Your task to perform on an android device: Go to Reddit.com Image 0: 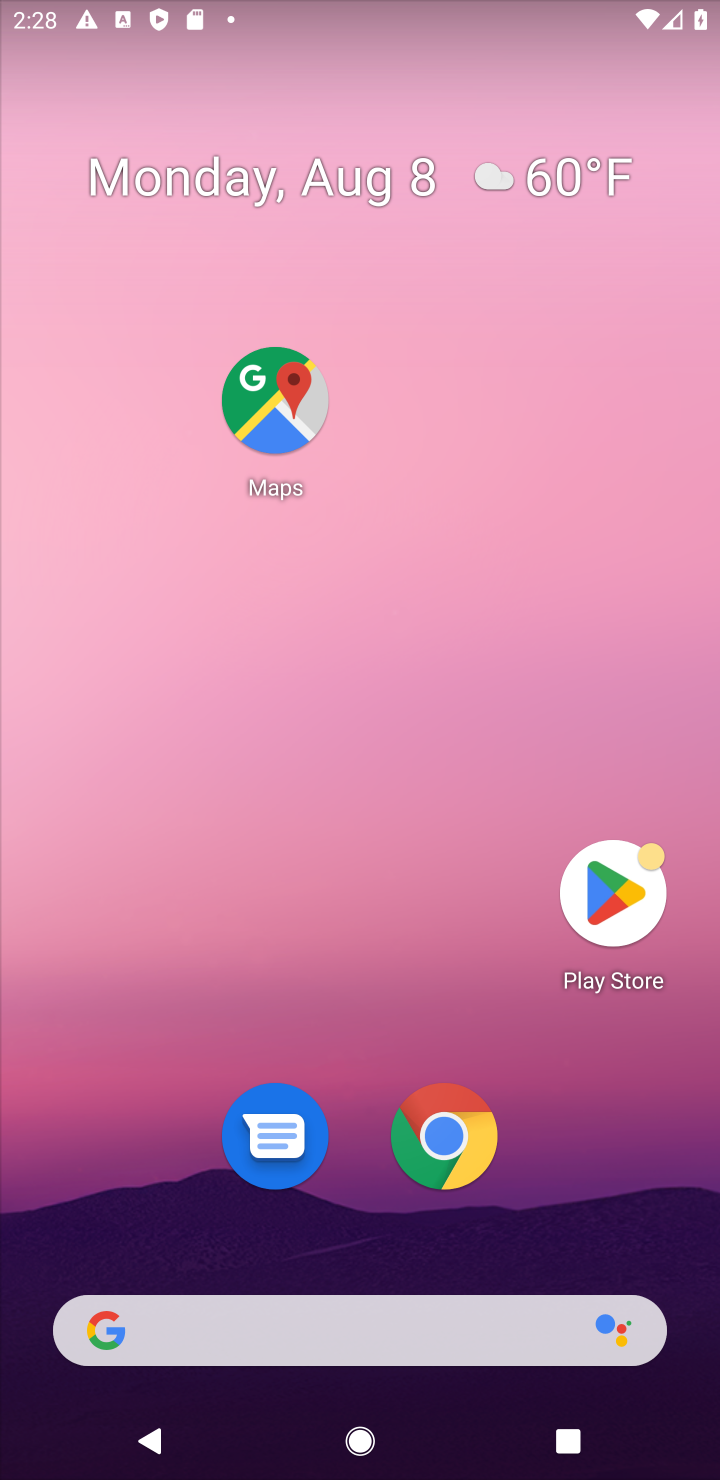
Step 0: click (201, 1304)
Your task to perform on an android device: Go to Reddit.com Image 1: 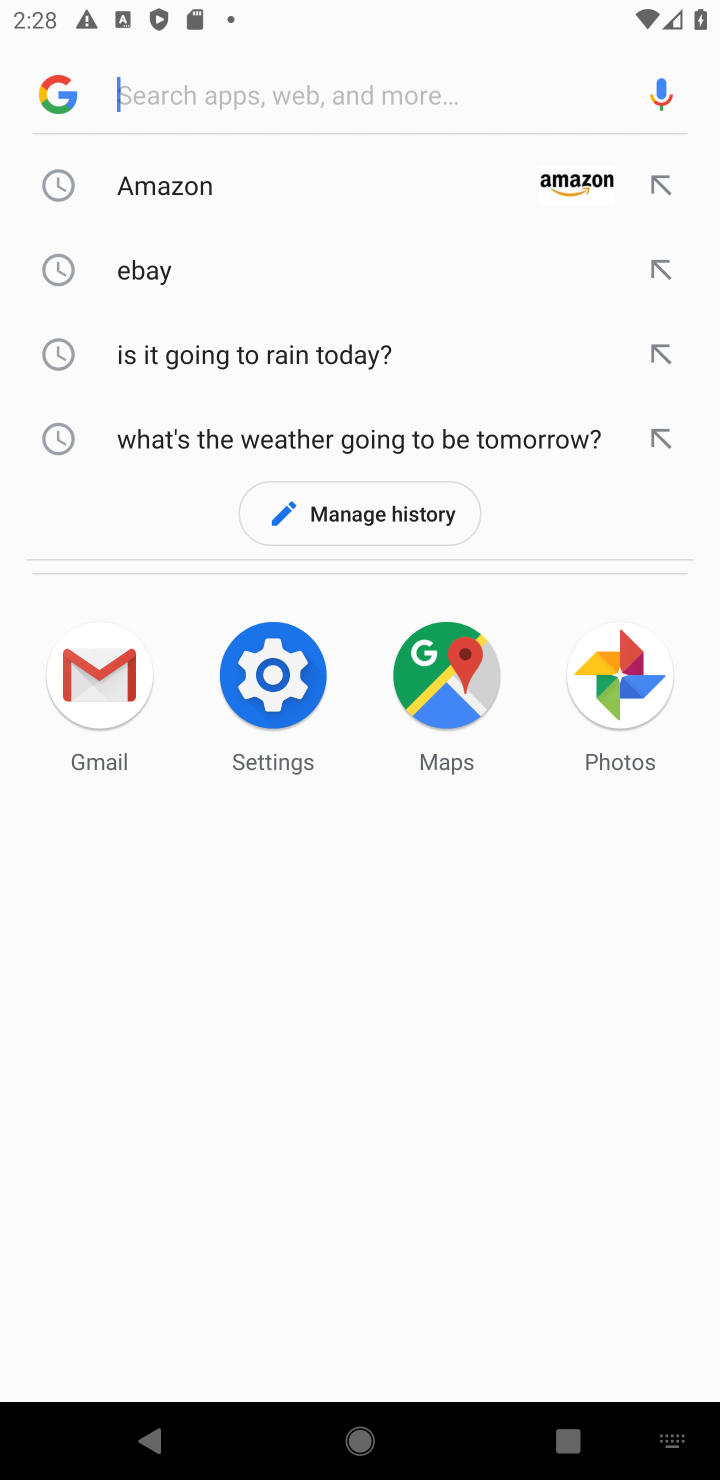
Step 1: type "Reddit.com"
Your task to perform on an android device: Go to Reddit.com Image 2: 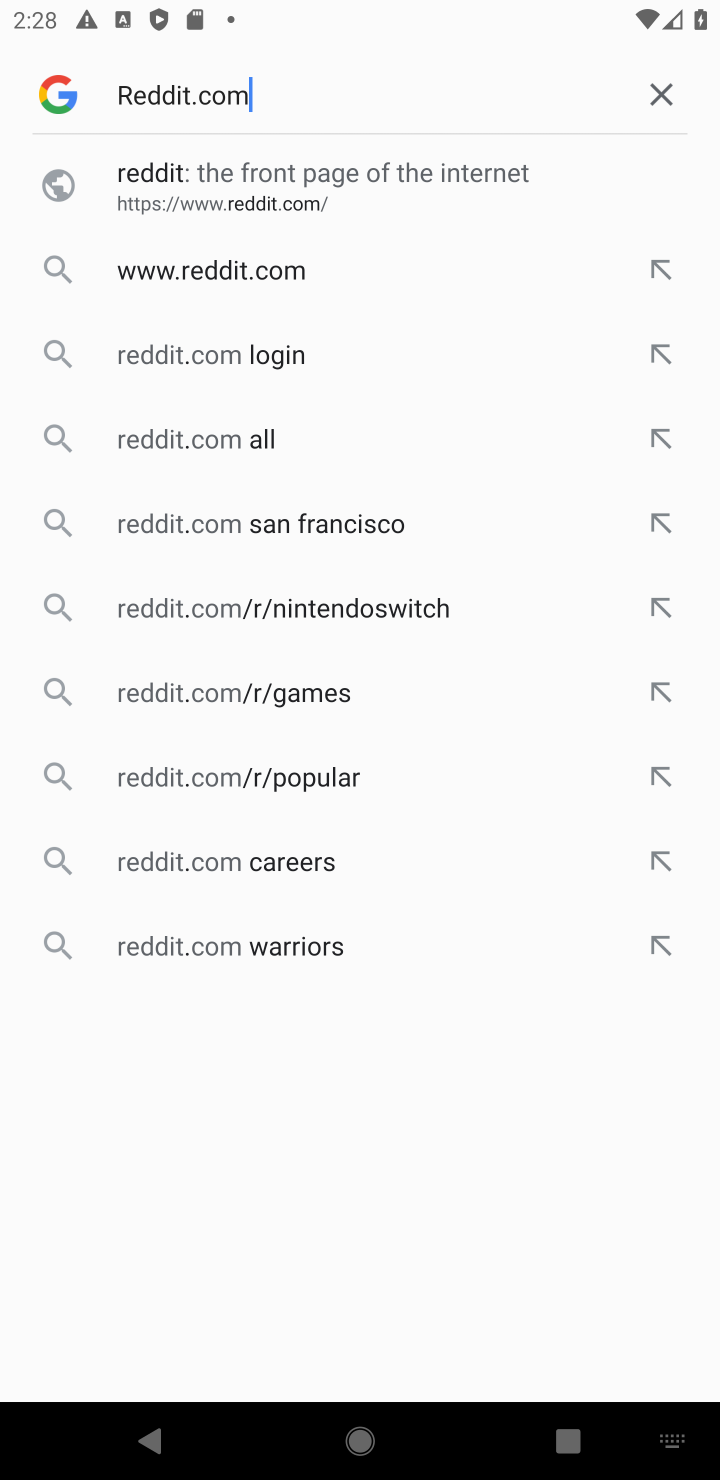
Step 2: click (232, 262)
Your task to perform on an android device: Go to Reddit.com Image 3: 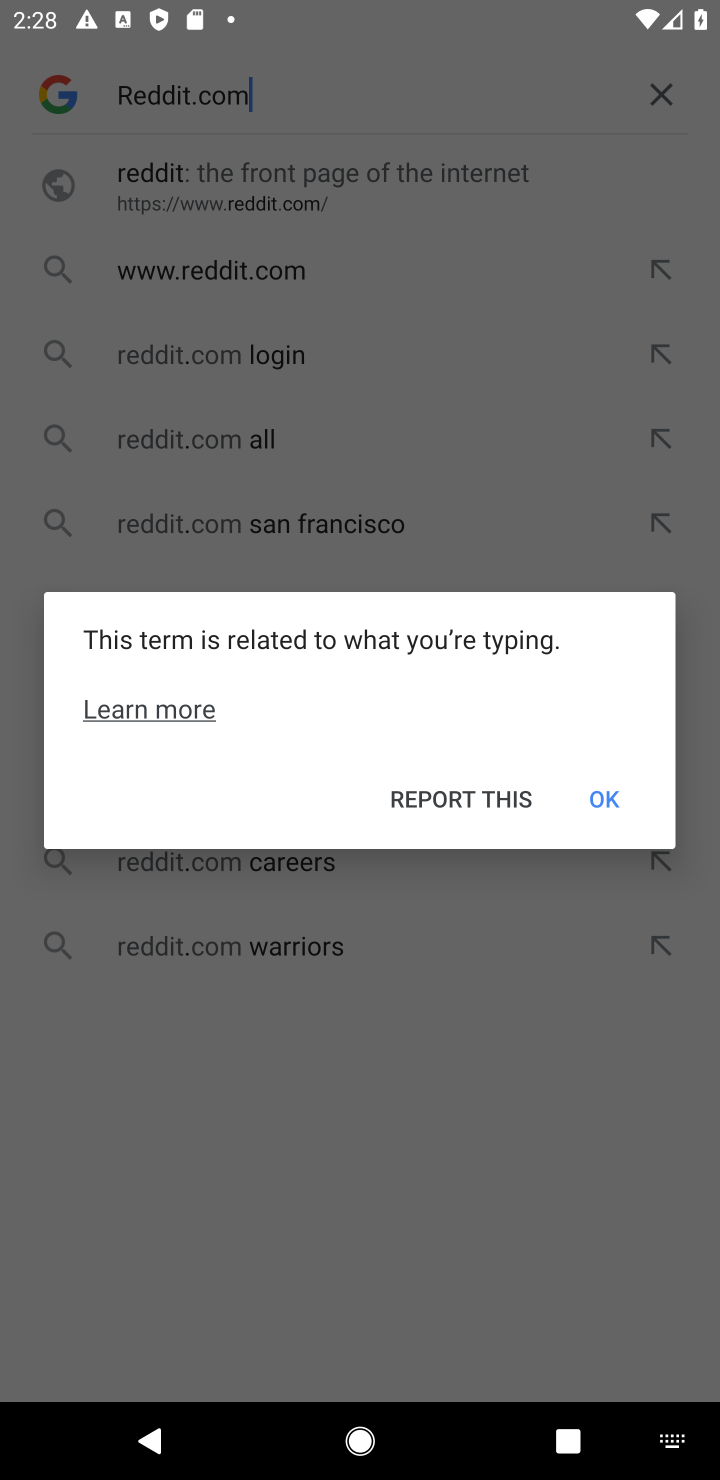
Step 3: click (622, 813)
Your task to perform on an android device: Go to Reddit.com Image 4: 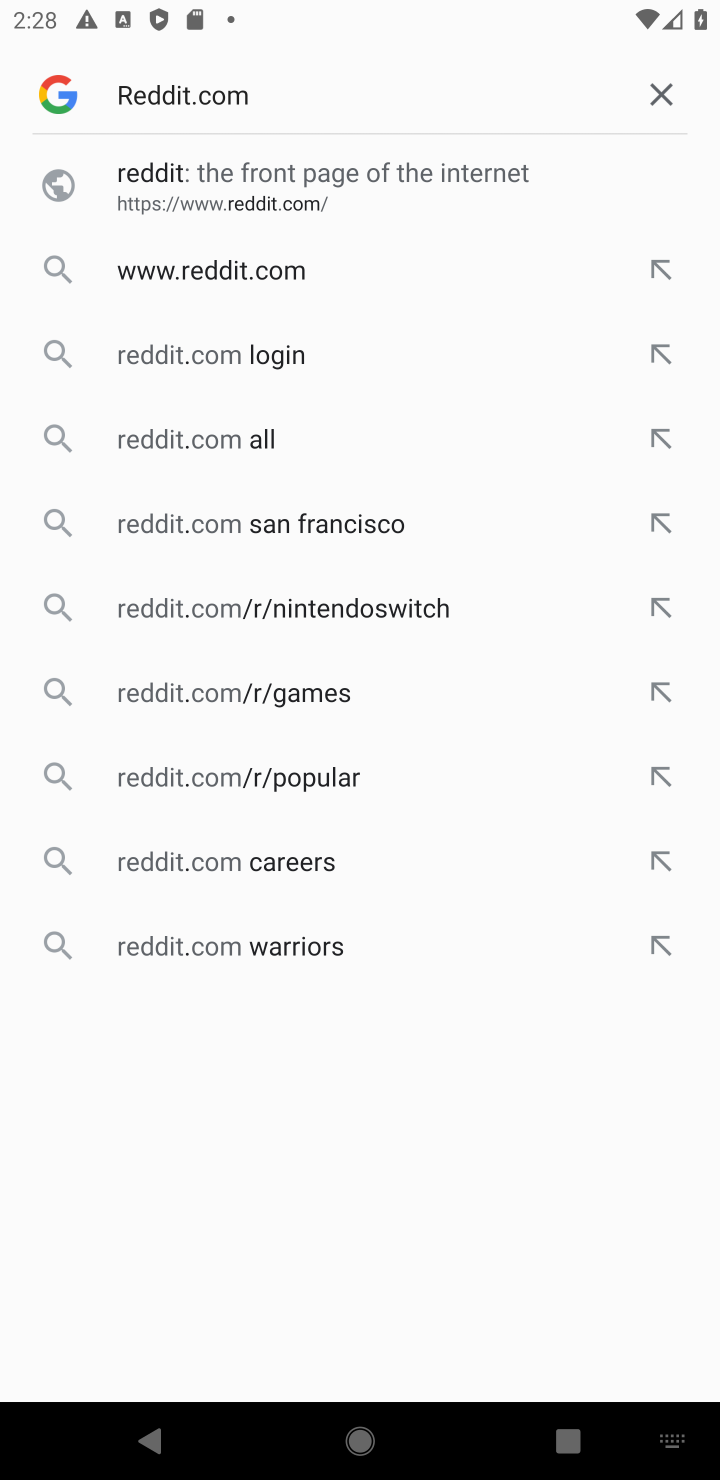
Step 4: click (203, 271)
Your task to perform on an android device: Go to Reddit.com Image 5: 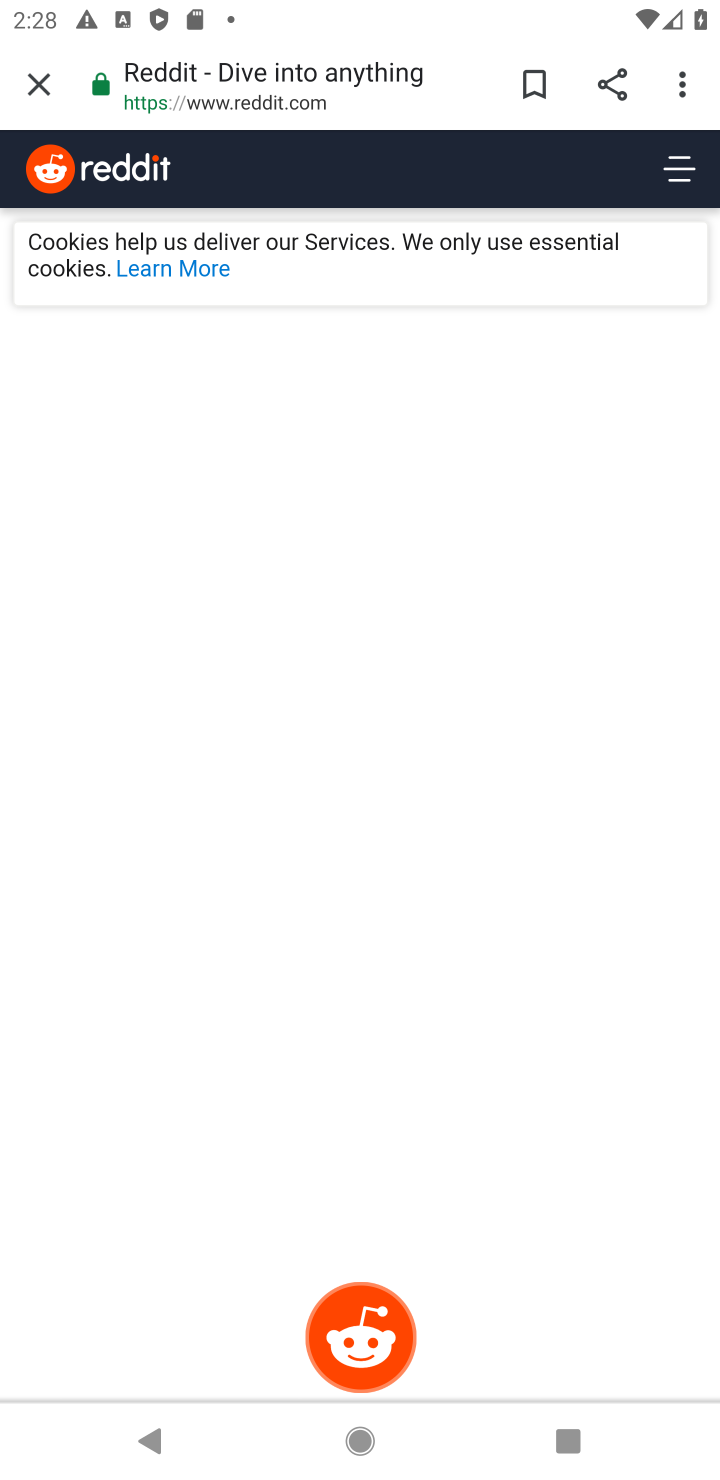
Step 5: task complete